Your task to perform on an android device: check out phone information Image 0: 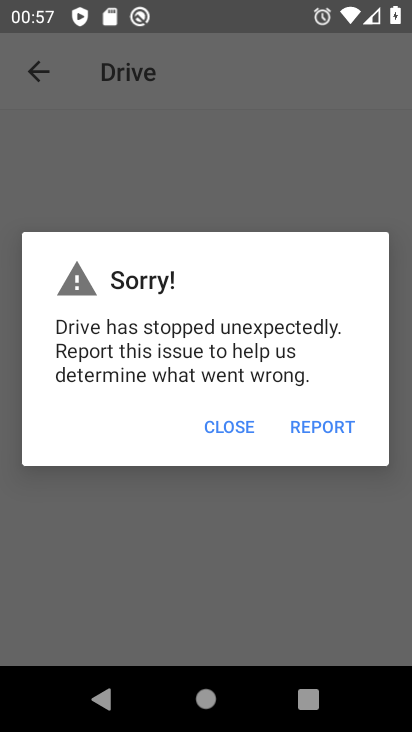
Step 0: press home button
Your task to perform on an android device: check out phone information Image 1: 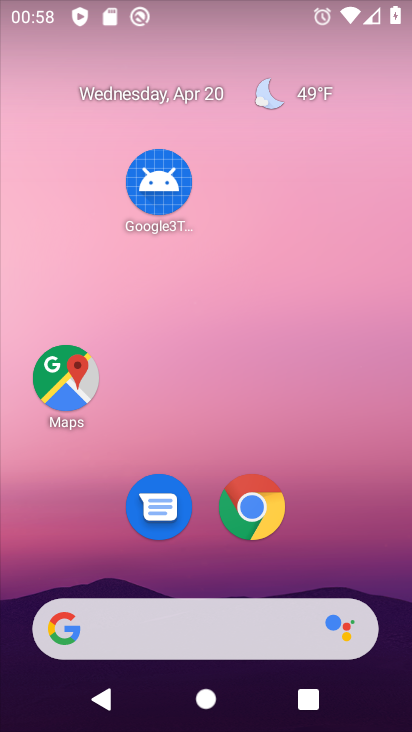
Step 1: drag from (200, 559) to (308, 2)
Your task to perform on an android device: check out phone information Image 2: 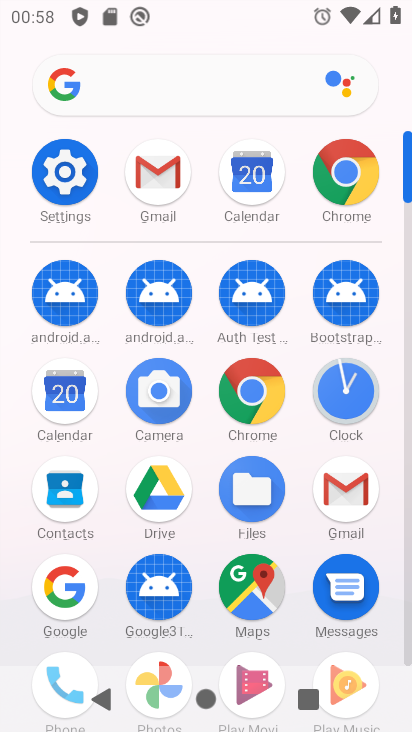
Step 2: click (67, 173)
Your task to perform on an android device: check out phone information Image 3: 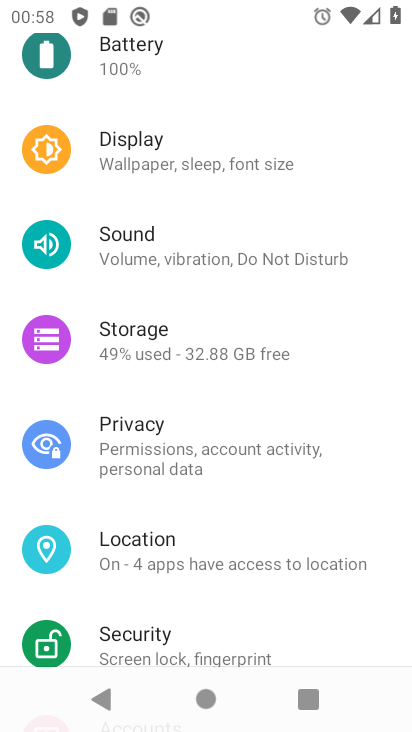
Step 3: drag from (264, 203) to (225, 719)
Your task to perform on an android device: check out phone information Image 4: 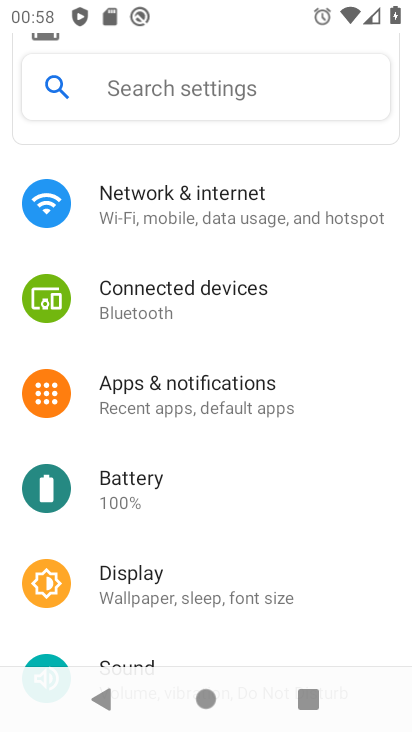
Step 4: drag from (218, 552) to (239, 199)
Your task to perform on an android device: check out phone information Image 5: 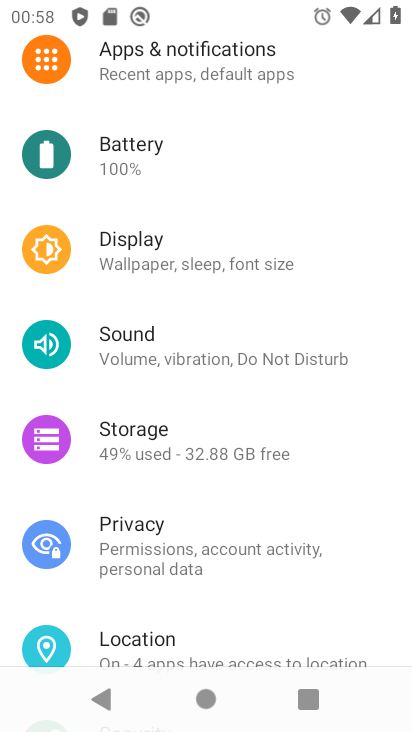
Step 5: drag from (204, 591) to (193, 71)
Your task to perform on an android device: check out phone information Image 6: 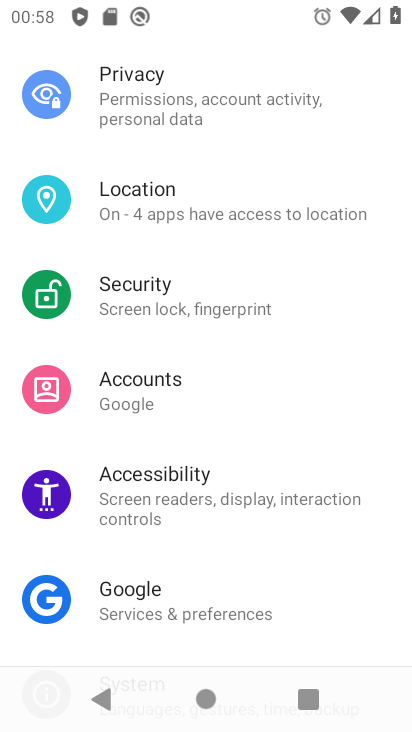
Step 6: drag from (208, 529) to (189, 17)
Your task to perform on an android device: check out phone information Image 7: 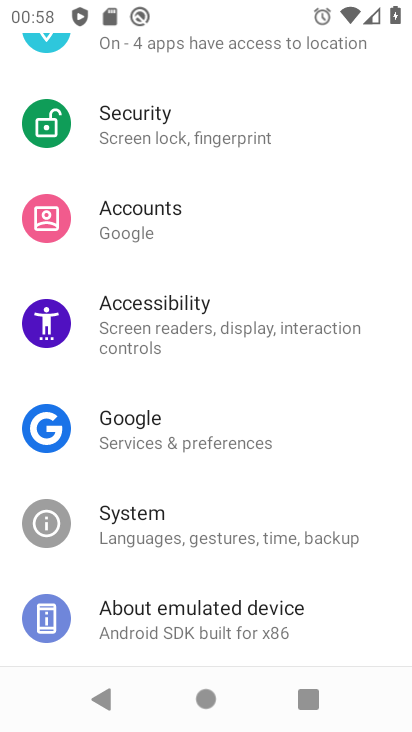
Step 7: drag from (220, 523) to (234, 4)
Your task to perform on an android device: check out phone information Image 8: 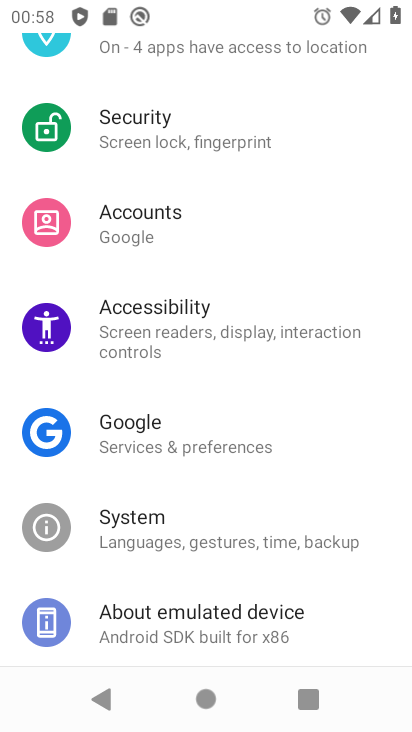
Step 8: click (153, 617)
Your task to perform on an android device: check out phone information Image 9: 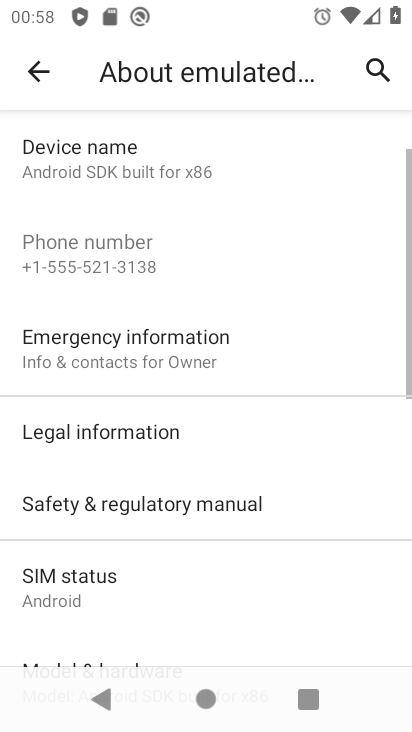
Step 9: task complete